Your task to perform on an android device: see sites visited before in the chrome app Image 0: 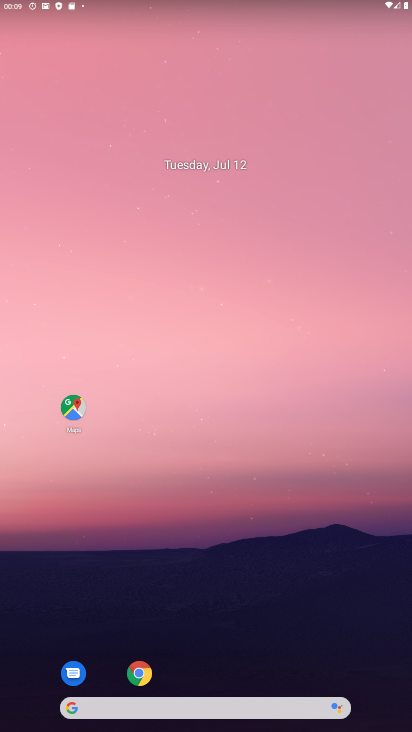
Step 0: press home button
Your task to perform on an android device: see sites visited before in the chrome app Image 1: 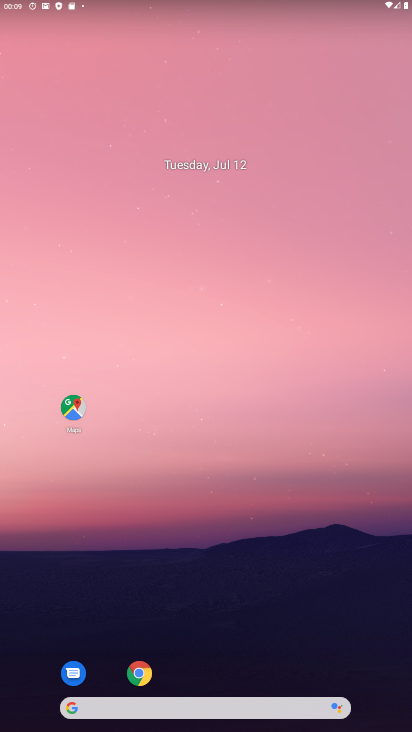
Step 1: drag from (238, 603) to (166, 115)
Your task to perform on an android device: see sites visited before in the chrome app Image 2: 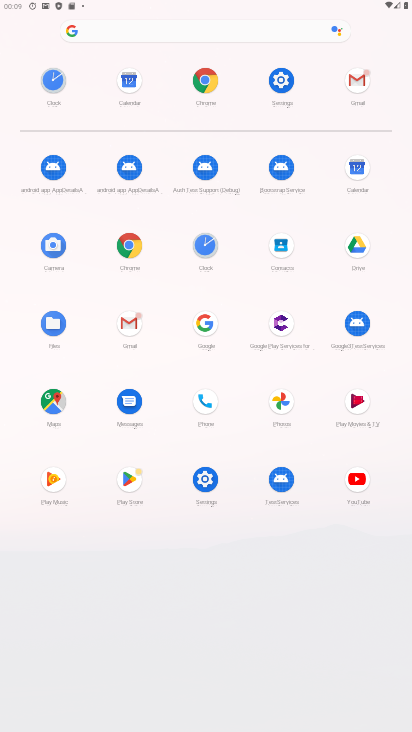
Step 2: click (124, 238)
Your task to perform on an android device: see sites visited before in the chrome app Image 3: 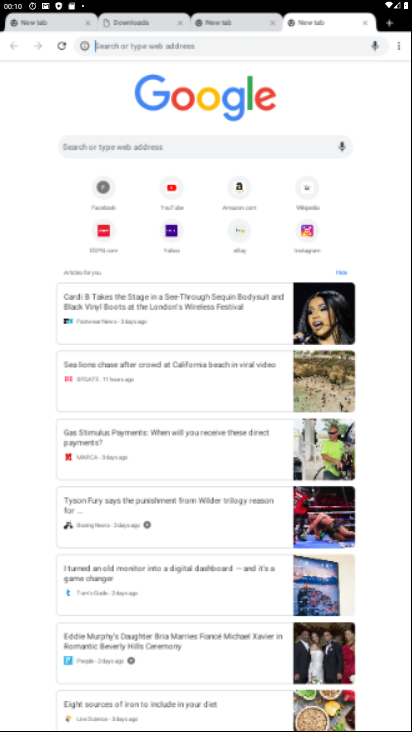
Step 3: click (394, 42)
Your task to perform on an android device: see sites visited before in the chrome app Image 4: 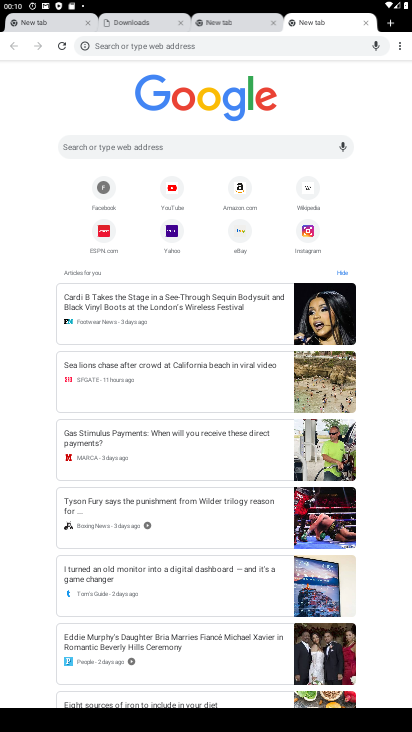
Step 4: task complete